Your task to perform on an android device: Show me popular videos on Youtube Image 0: 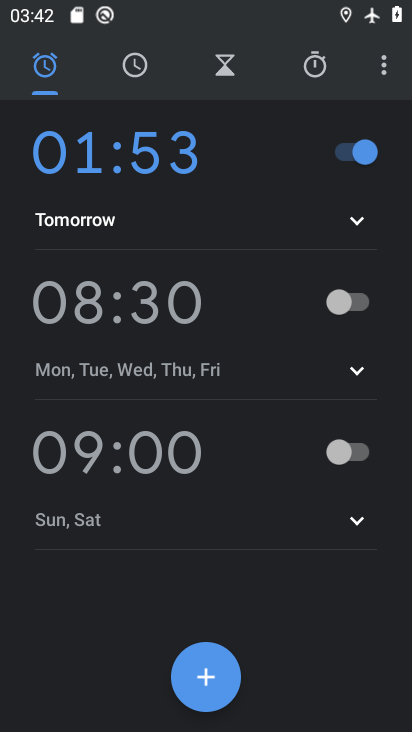
Step 0: press home button
Your task to perform on an android device: Show me popular videos on Youtube Image 1: 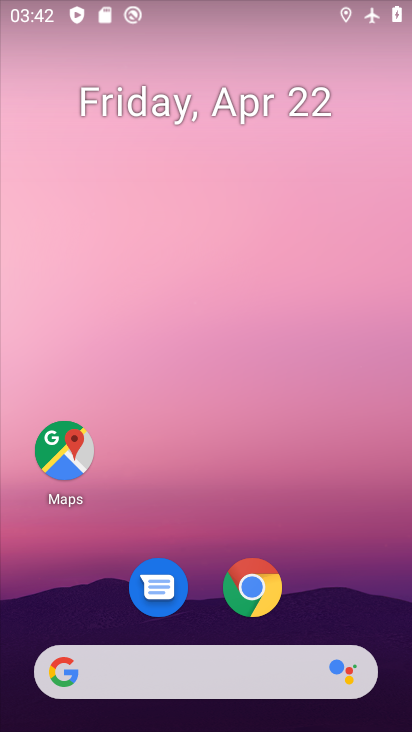
Step 1: drag from (193, 520) to (222, 10)
Your task to perform on an android device: Show me popular videos on Youtube Image 2: 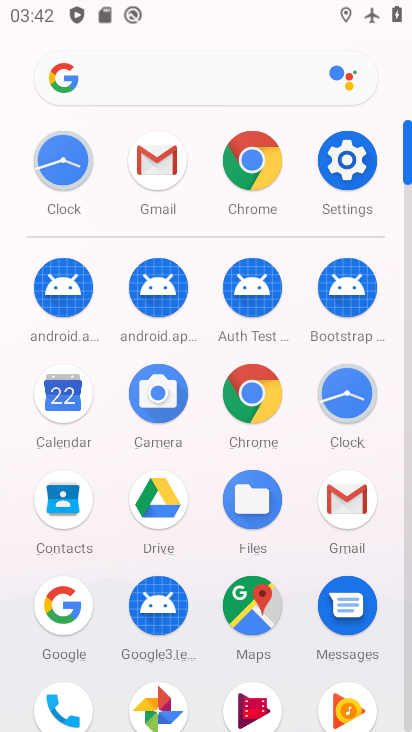
Step 2: drag from (196, 495) to (235, 254)
Your task to perform on an android device: Show me popular videos on Youtube Image 3: 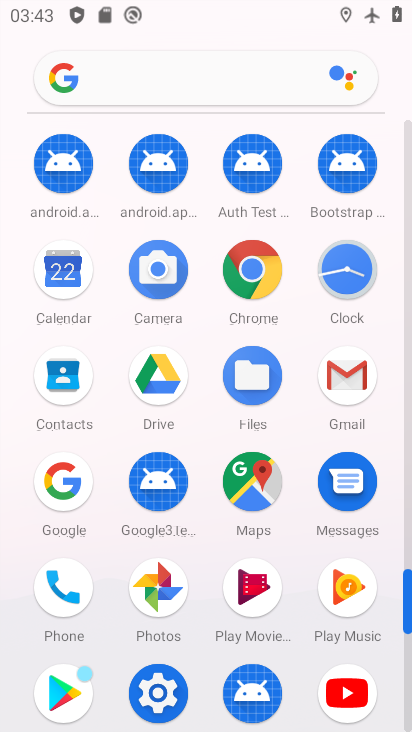
Step 3: click (344, 693)
Your task to perform on an android device: Show me popular videos on Youtube Image 4: 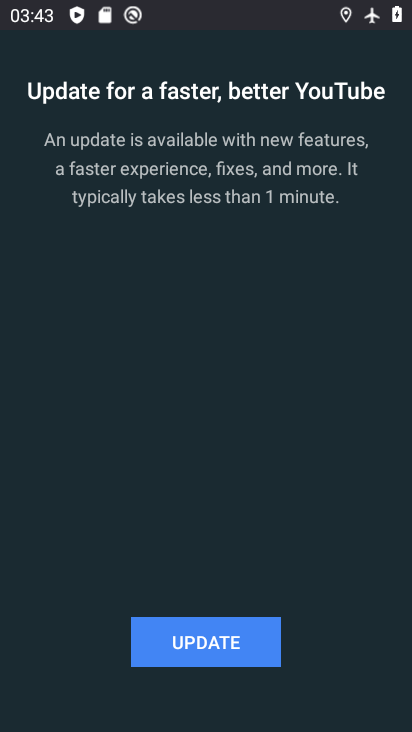
Step 4: click (223, 649)
Your task to perform on an android device: Show me popular videos on Youtube Image 5: 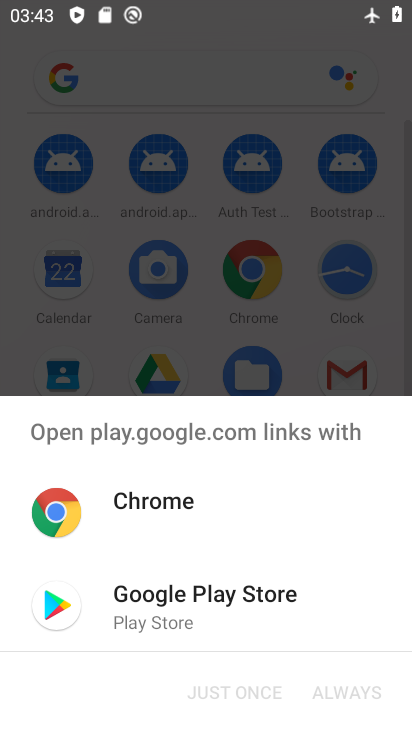
Step 5: click (194, 610)
Your task to perform on an android device: Show me popular videos on Youtube Image 6: 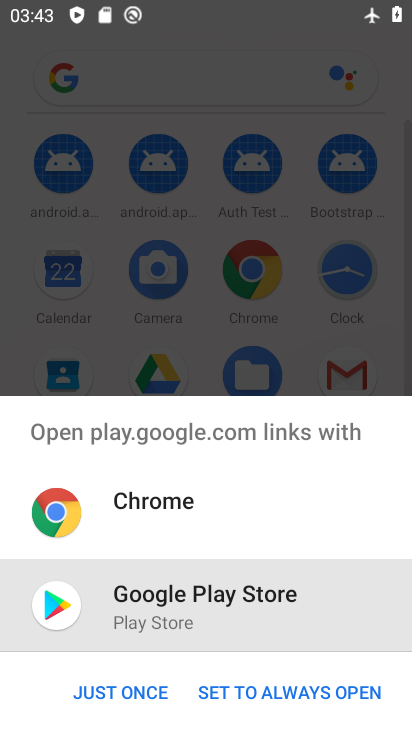
Step 6: click (142, 687)
Your task to perform on an android device: Show me popular videos on Youtube Image 7: 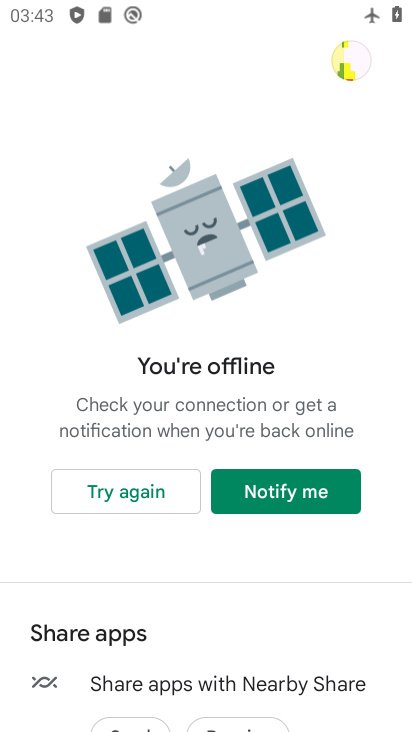
Step 7: press back button
Your task to perform on an android device: Show me popular videos on Youtube Image 8: 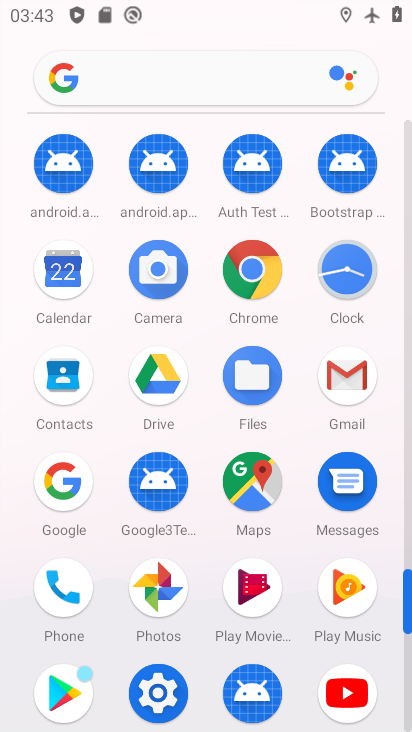
Step 8: click (160, 694)
Your task to perform on an android device: Show me popular videos on Youtube Image 9: 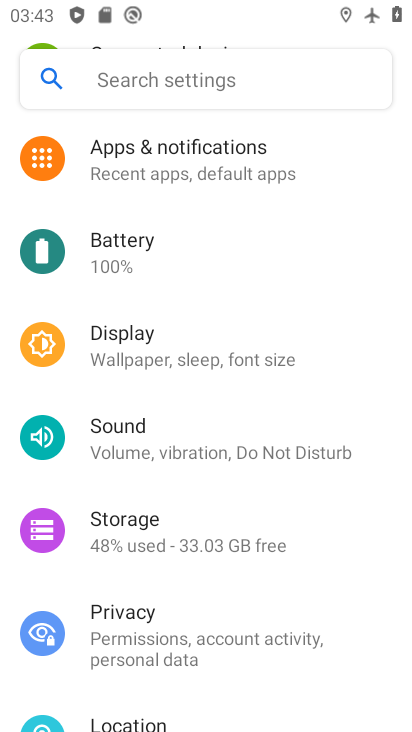
Step 9: drag from (201, 279) to (202, 513)
Your task to perform on an android device: Show me popular videos on Youtube Image 10: 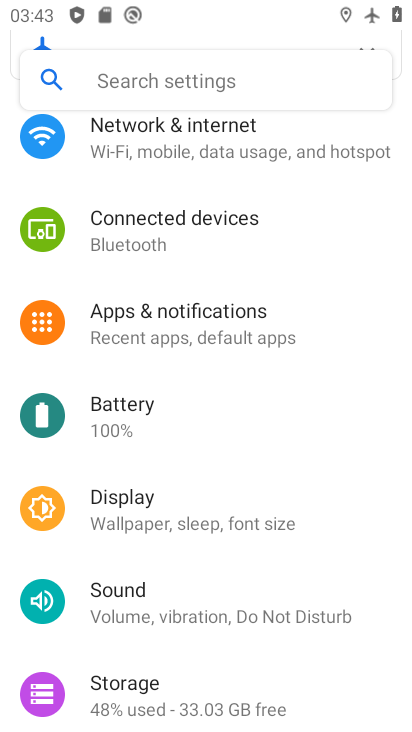
Step 10: drag from (266, 178) to (200, 427)
Your task to perform on an android device: Show me popular videos on Youtube Image 11: 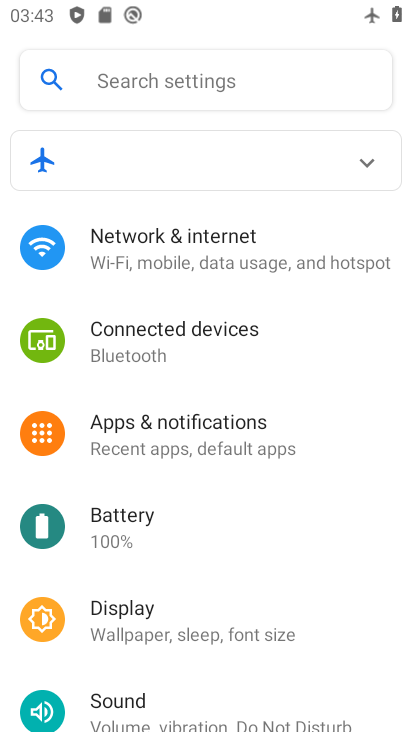
Step 11: click (170, 240)
Your task to perform on an android device: Show me popular videos on Youtube Image 12: 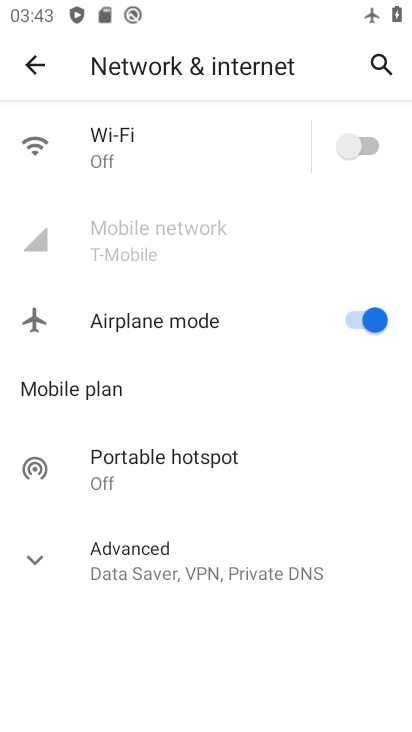
Step 12: click (363, 325)
Your task to perform on an android device: Show me popular videos on Youtube Image 13: 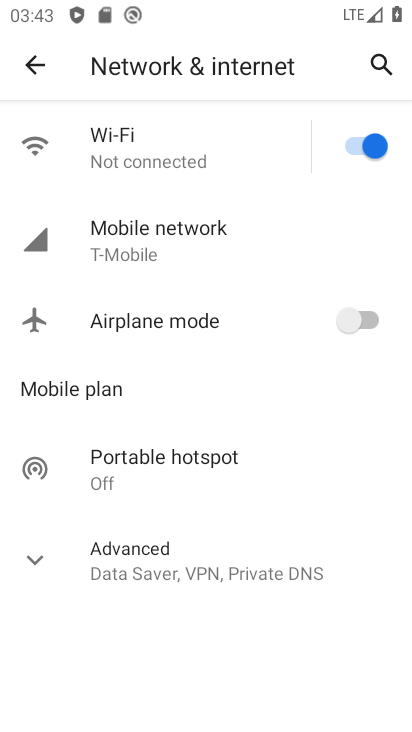
Step 13: press back button
Your task to perform on an android device: Show me popular videos on Youtube Image 14: 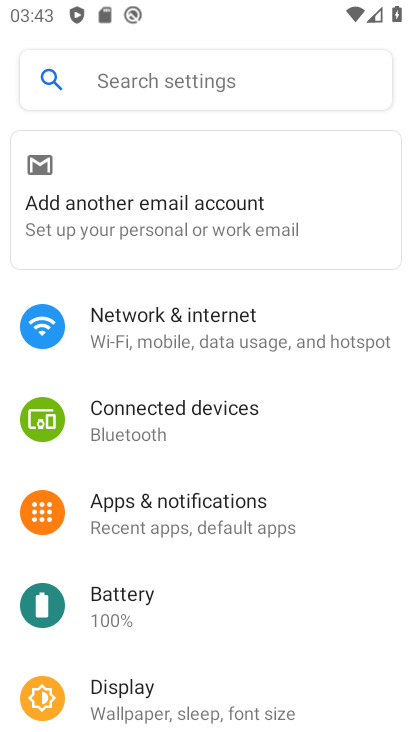
Step 14: press back button
Your task to perform on an android device: Show me popular videos on Youtube Image 15: 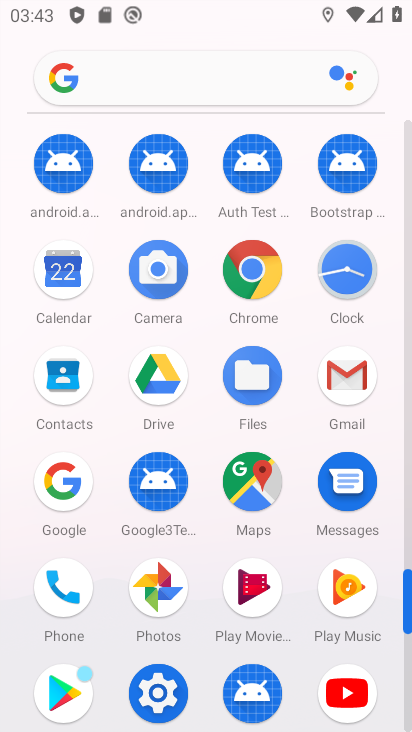
Step 15: click (341, 689)
Your task to perform on an android device: Show me popular videos on Youtube Image 16: 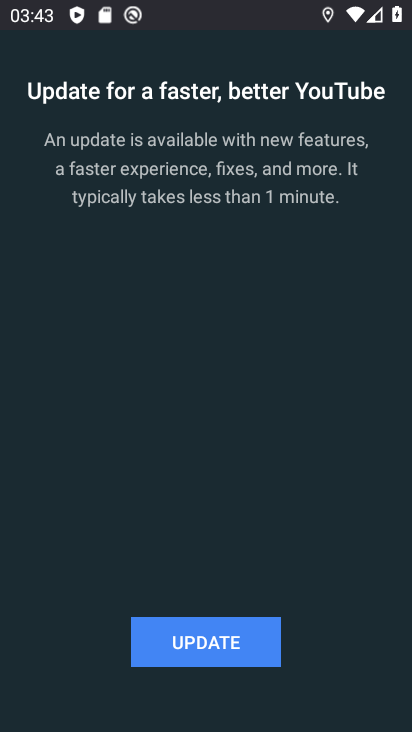
Step 16: click (199, 655)
Your task to perform on an android device: Show me popular videos on Youtube Image 17: 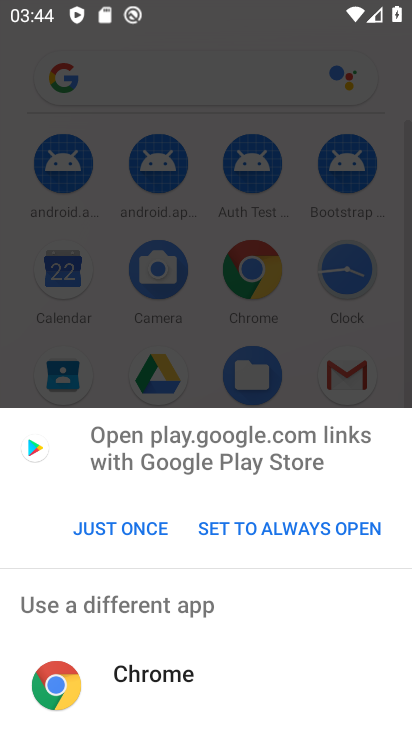
Step 17: click (142, 530)
Your task to perform on an android device: Show me popular videos on Youtube Image 18: 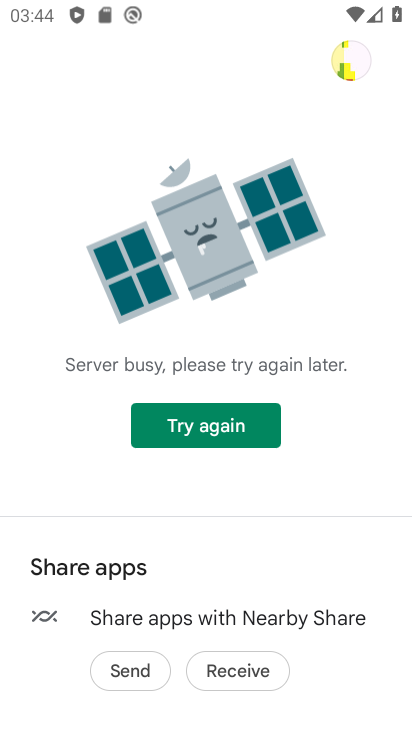
Step 18: click (205, 434)
Your task to perform on an android device: Show me popular videos on Youtube Image 19: 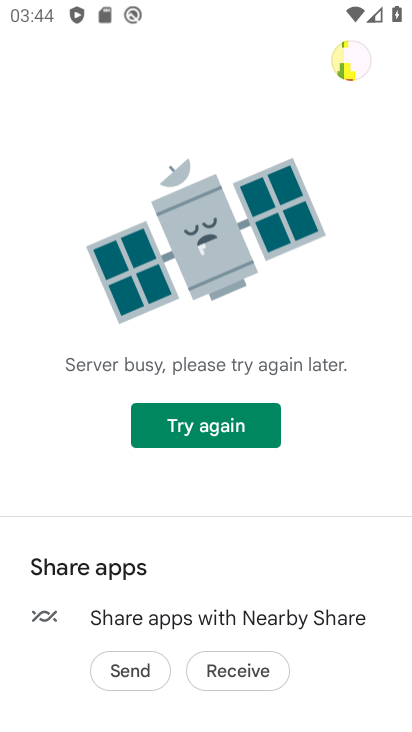
Step 19: click (205, 434)
Your task to perform on an android device: Show me popular videos on Youtube Image 20: 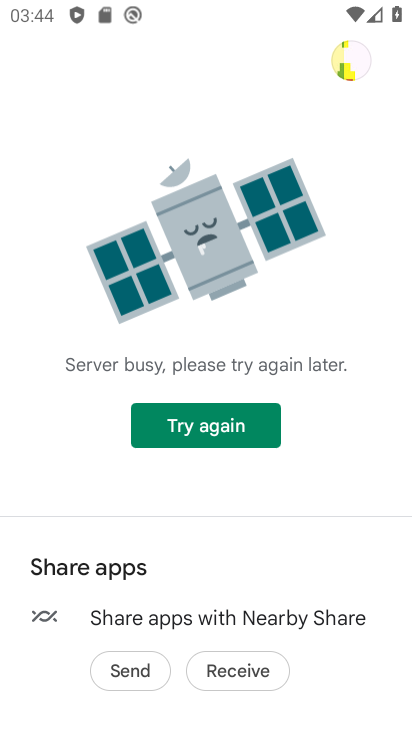
Step 20: click (205, 434)
Your task to perform on an android device: Show me popular videos on Youtube Image 21: 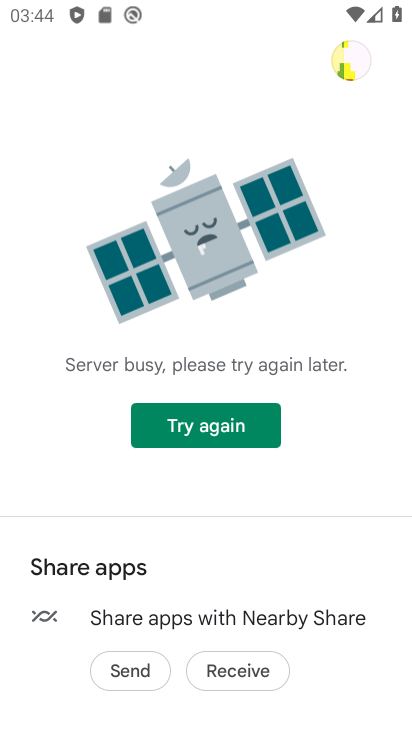
Step 21: press back button
Your task to perform on an android device: Show me popular videos on Youtube Image 22: 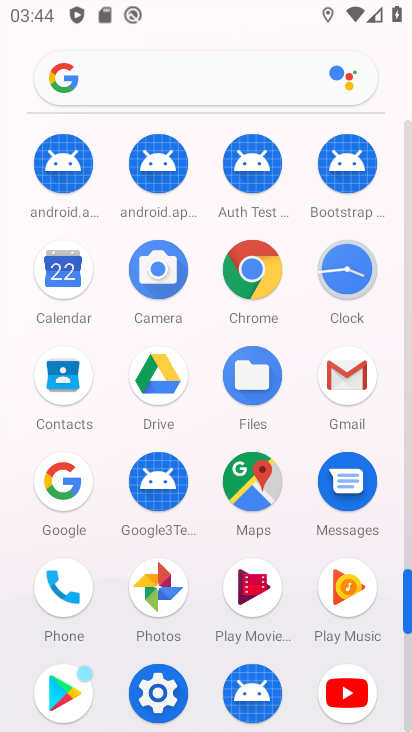
Step 22: press back button
Your task to perform on an android device: Show me popular videos on Youtube Image 23: 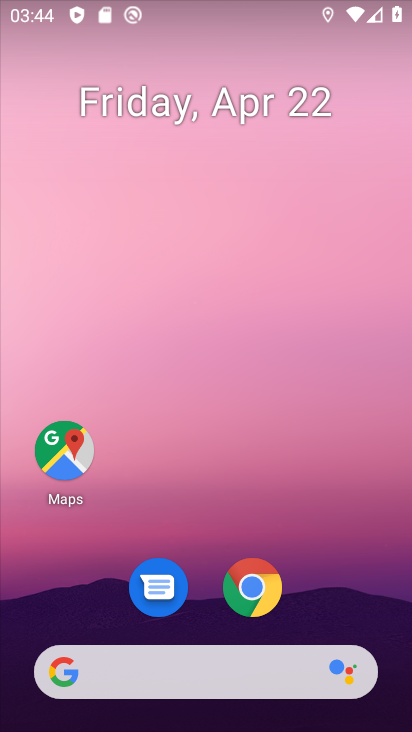
Step 23: drag from (231, 469) to (221, 7)
Your task to perform on an android device: Show me popular videos on Youtube Image 24: 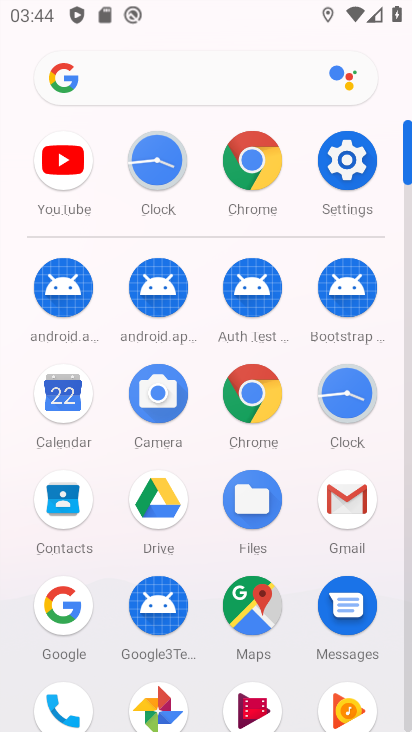
Step 24: click (54, 161)
Your task to perform on an android device: Show me popular videos on Youtube Image 25: 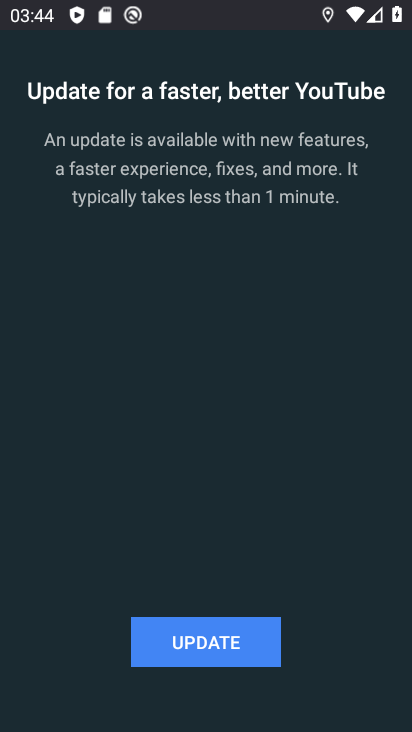
Step 25: click (193, 650)
Your task to perform on an android device: Show me popular videos on Youtube Image 26: 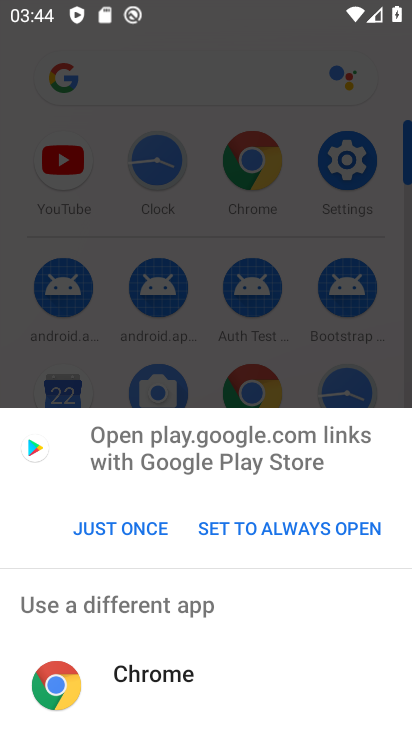
Step 26: click (120, 521)
Your task to perform on an android device: Show me popular videos on Youtube Image 27: 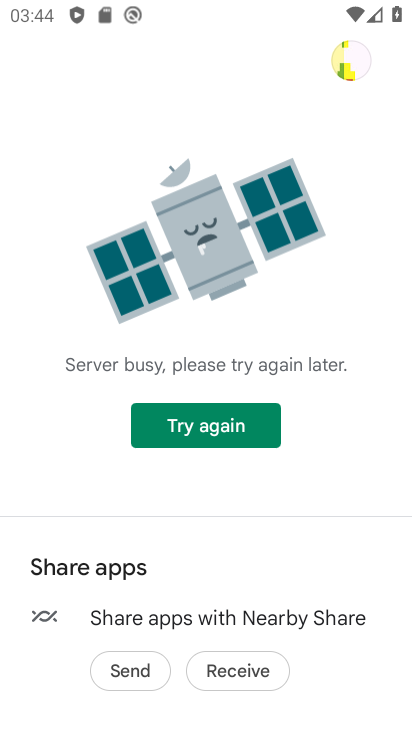
Step 27: click (211, 424)
Your task to perform on an android device: Show me popular videos on Youtube Image 28: 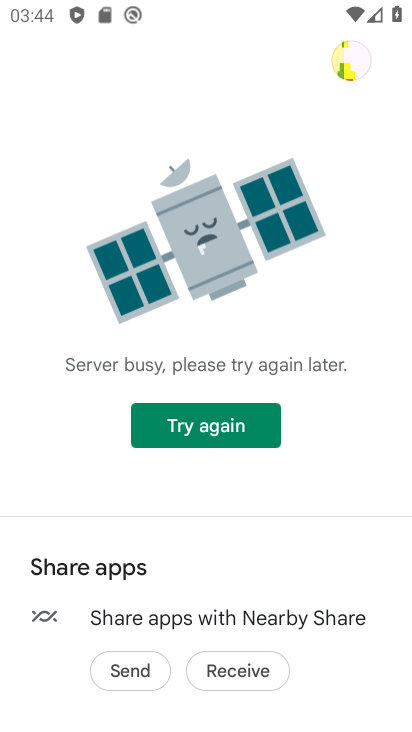
Step 28: task complete